Your task to perform on an android device: manage bookmarks in the chrome app Image 0: 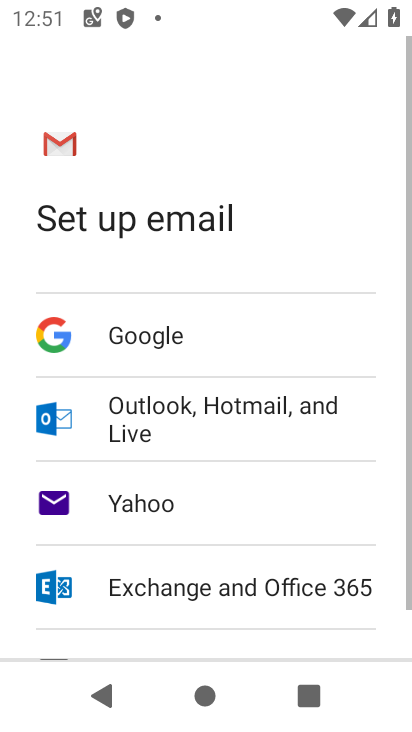
Step 0: press home button
Your task to perform on an android device: manage bookmarks in the chrome app Image 1: 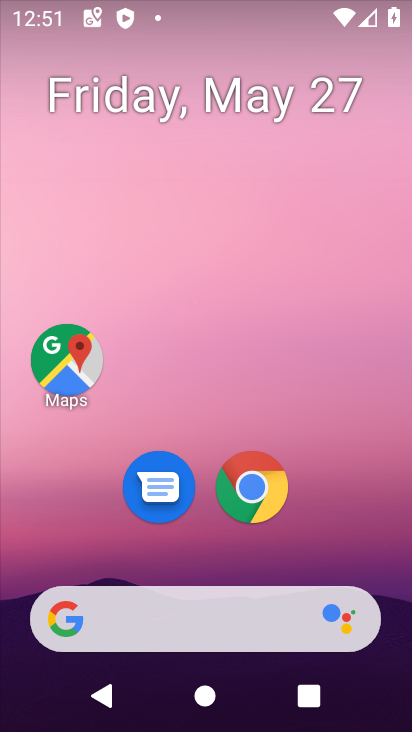
Step 1: drag from (216, 535) to (284, 117)
Your task to perform on an android device: manage bookmarks in the chrome app Image 2: 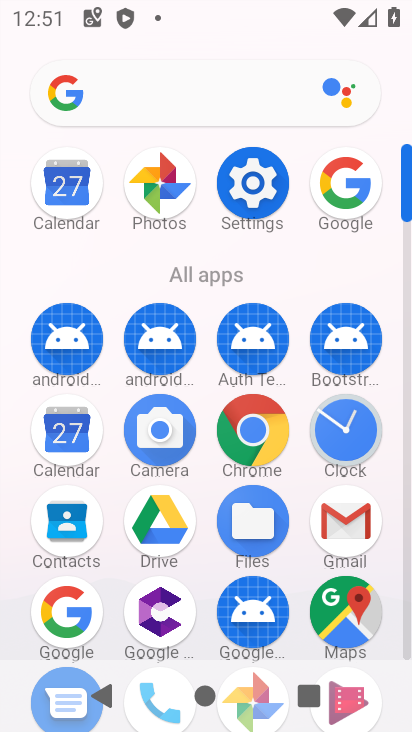
Step 2: click (264, 433)
Your task to perform on an android device: manage bookmarks in the chrome app Image 3: 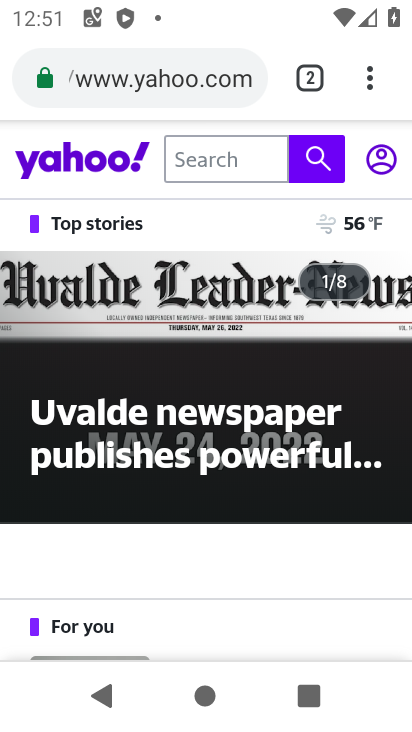
Step 3: click (360, 86)
Your task to perform on an android device: manage bookmarks in the chrome app Image 4: 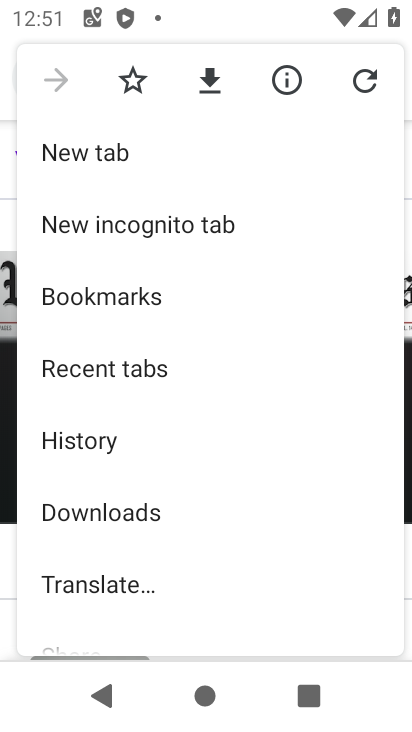
Step 4: click (95, 306)
Your task to perform on an android device: manage bookmarks in the chrome app Image 5: 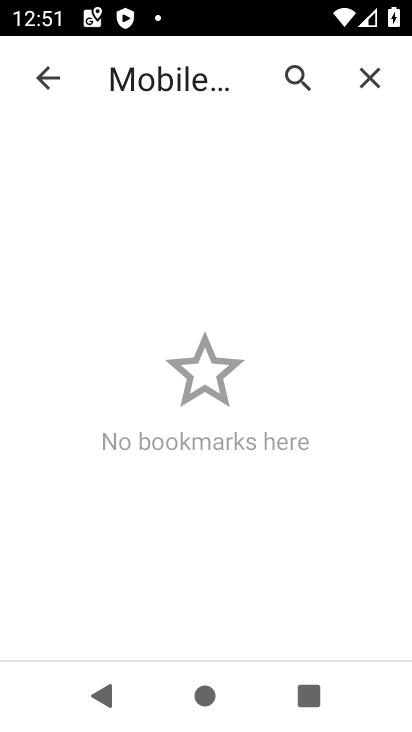
Step 5: task complete